Your task to perform on an android device: open app "Messenger Lite" (install if not already installed) and enter user name: "cataclysmic@outlook.com" and password: "victoriously" Image 0: 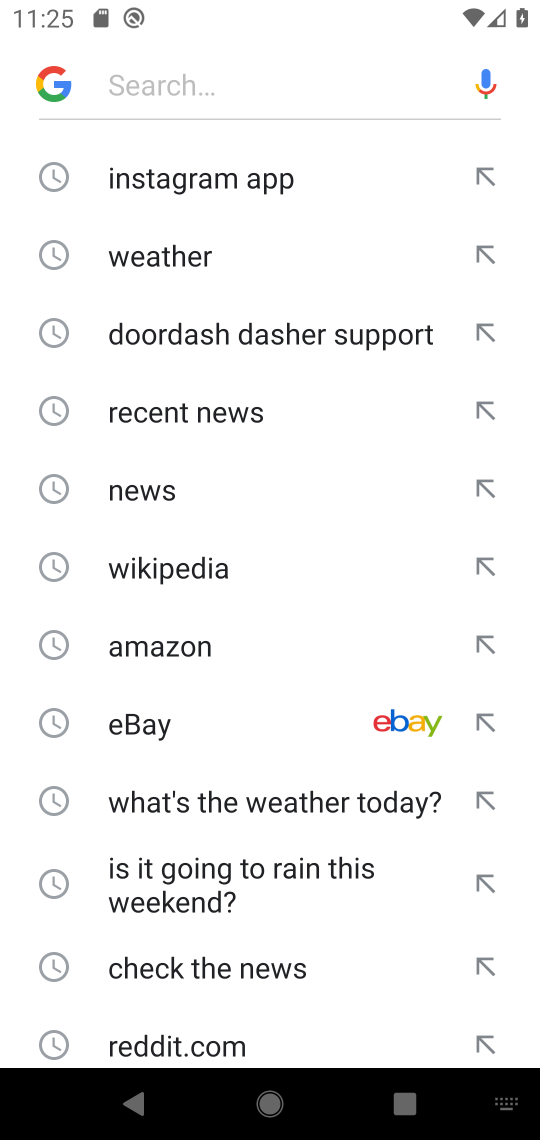
Step 0: press home button
Your task to perform on an android device: open app "Messenger Lite" (install if not already installed) and enter user name: "cataclysmic@outlook.com" and password: "victoriously" Image 1: 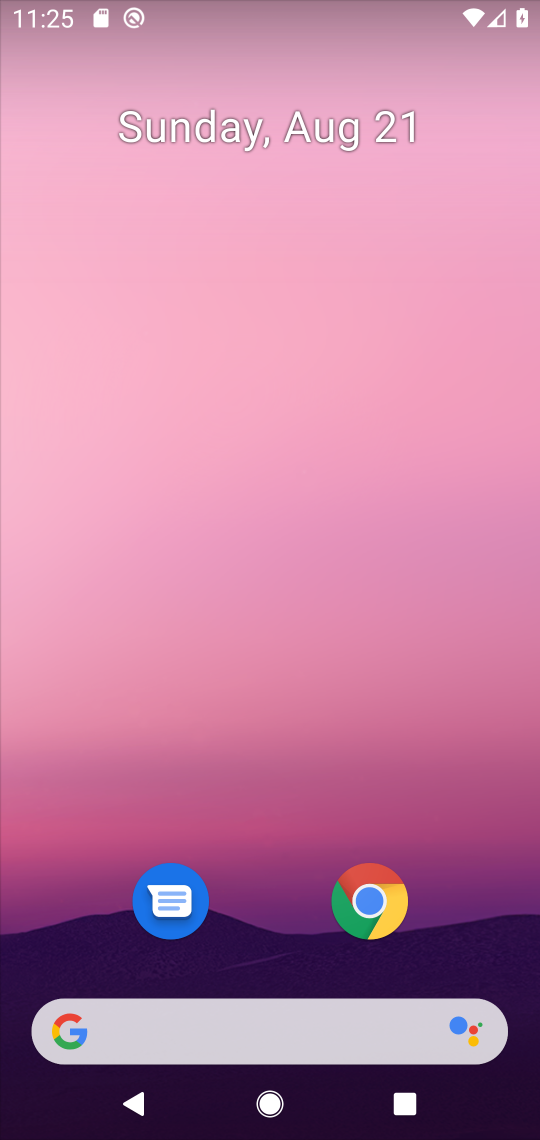
Step 1: drag from (244, 964) to (350, 47)
Your task to perform on an android device: open app "Messenger Lite" (install if not already installed) and enter user name: "cataclysmic@outlook.com" and password: "victoriously" Image 2: 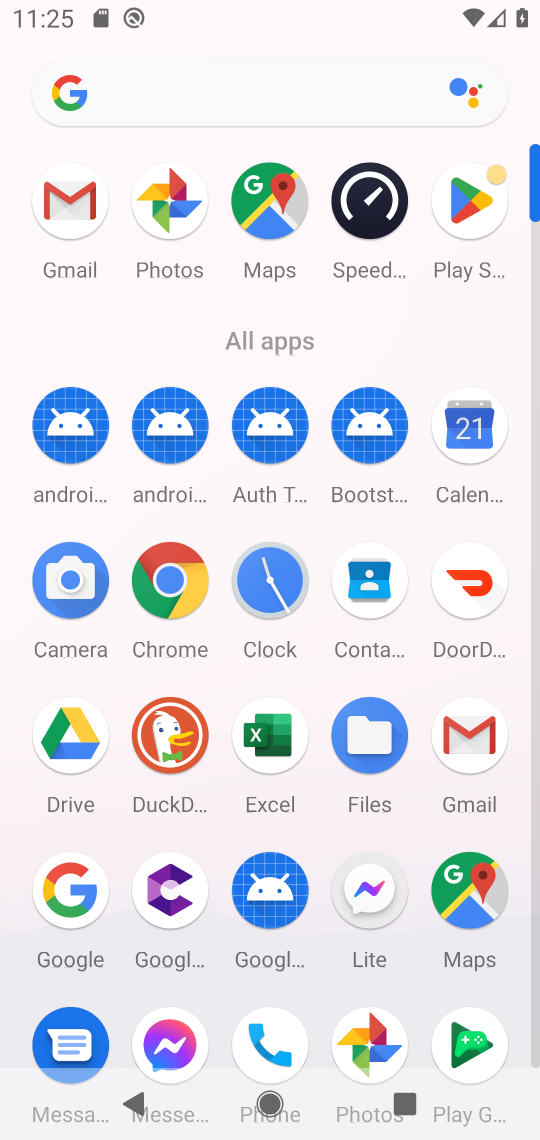
Step 2: click (453, 244)
Your task to perform on an android device: open app "Messenger Lite" (install if not already installed) and enter user name: "cataclysmic@outlook.com" and password: "victoriously" Image 3: 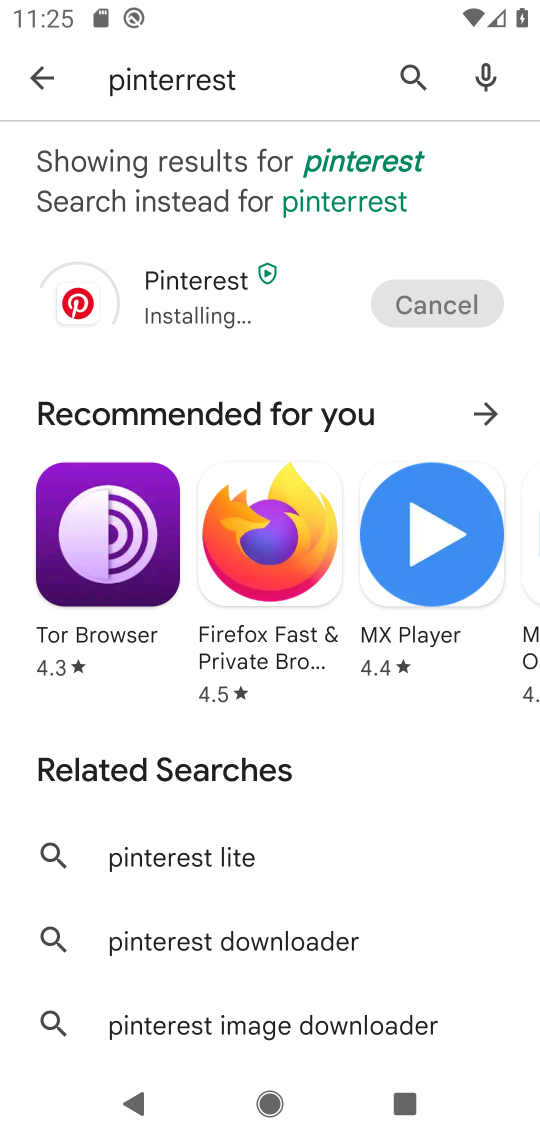
Step 3: click (404, 90)
Your task to perform on an android device: open app "Messenger Lite" (install if not already installed) and enter user name: "cataclysmic@outlook.com" and password: "victoriously" Image 4: 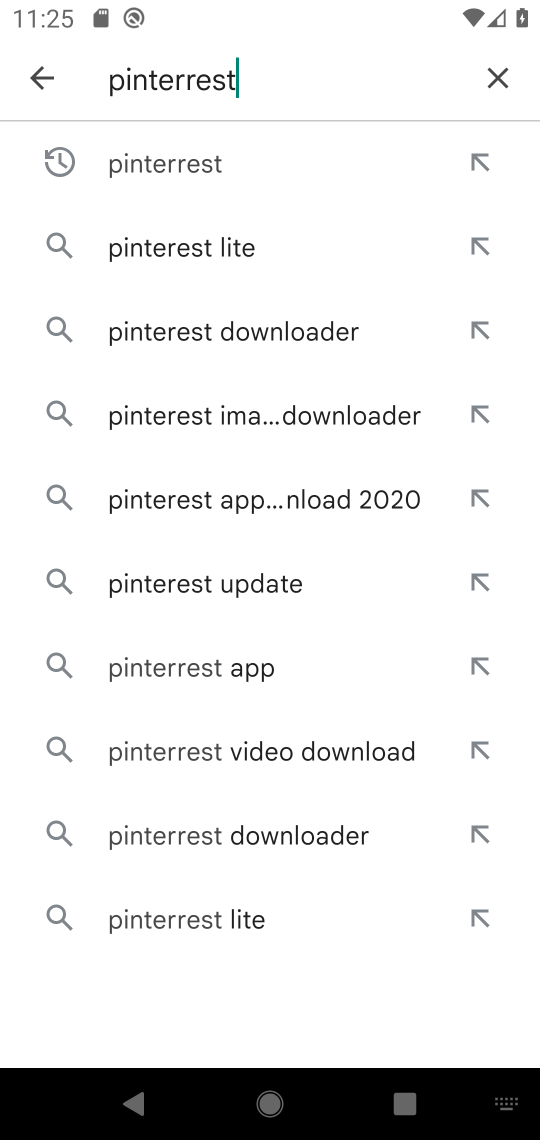
Step 4: click (473, 87)
Your task to perform on an android device: open app "Messenger Lite" (install if not already installed) and enter user name: "cataclysmic@outlook.com" and password: "victoriously" Image 5: 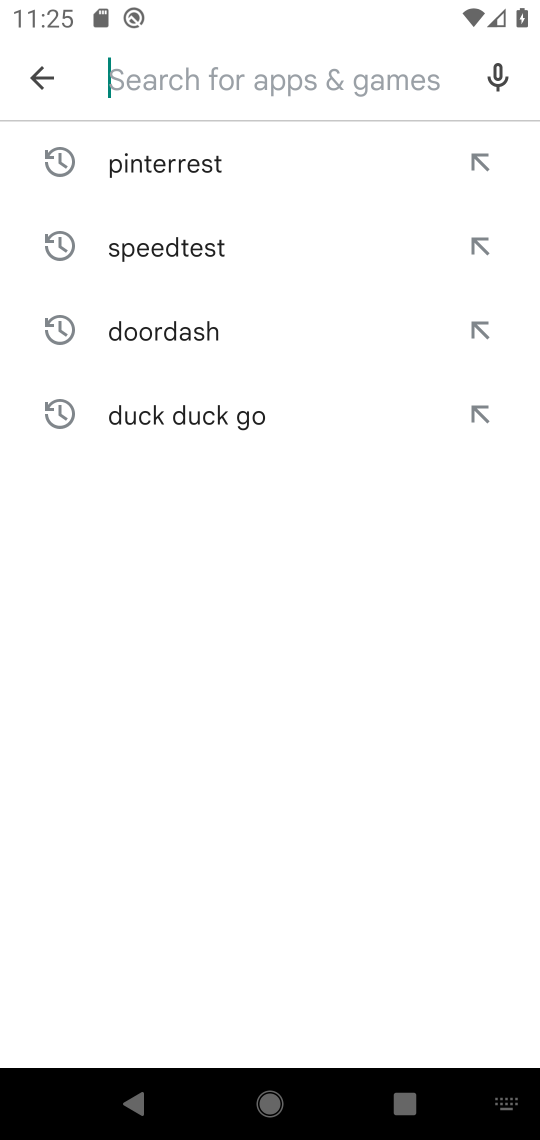
Step 5: type "messsanger"
Your task to perform on an android device: open app "Messenger Lite" (install if not already installed) and enter user name: "cataclysmic@outlook.com" and password: "victoriously" Image 6: 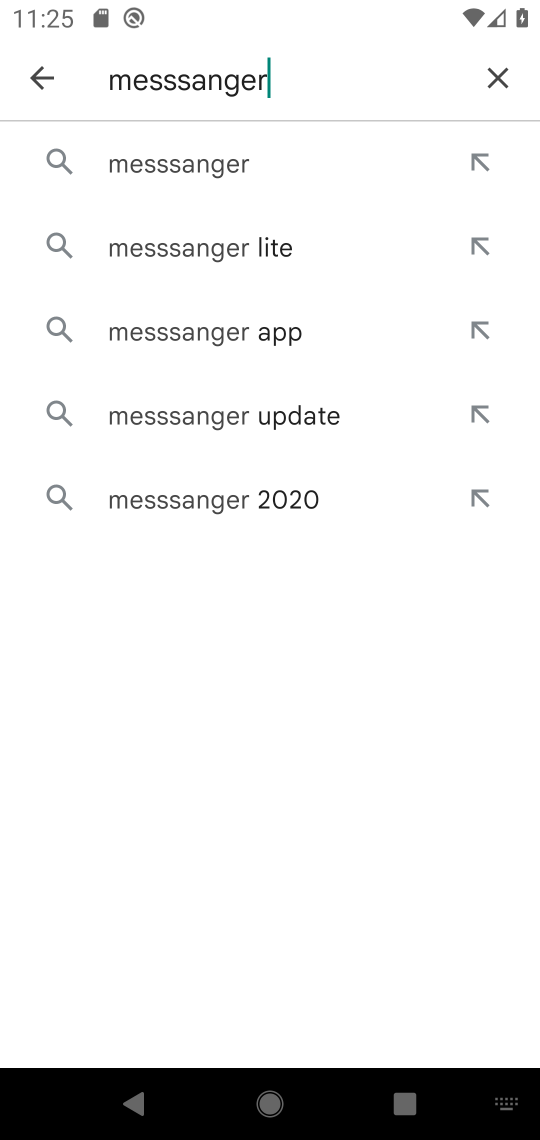
Step 6: click (270, 236)
Your task to perform on an android device: open app "Messenger Lite" (install if not already installed) and enter user name: "cataclysmic@outlook.com" and password: "victoriously" Image 7: 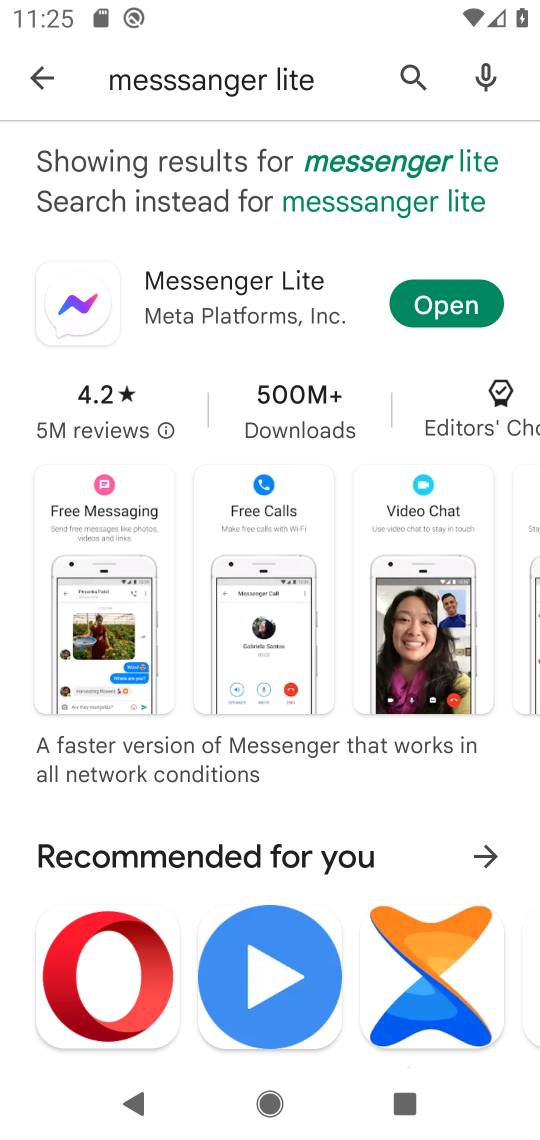
Step 7: click (442, 289)
Your task to perform on an android device: open app "Messenger Lite" (install if not already installed) and enter user name: "cataclysmic@outlook.com" and password: "victoriously" Image 8: 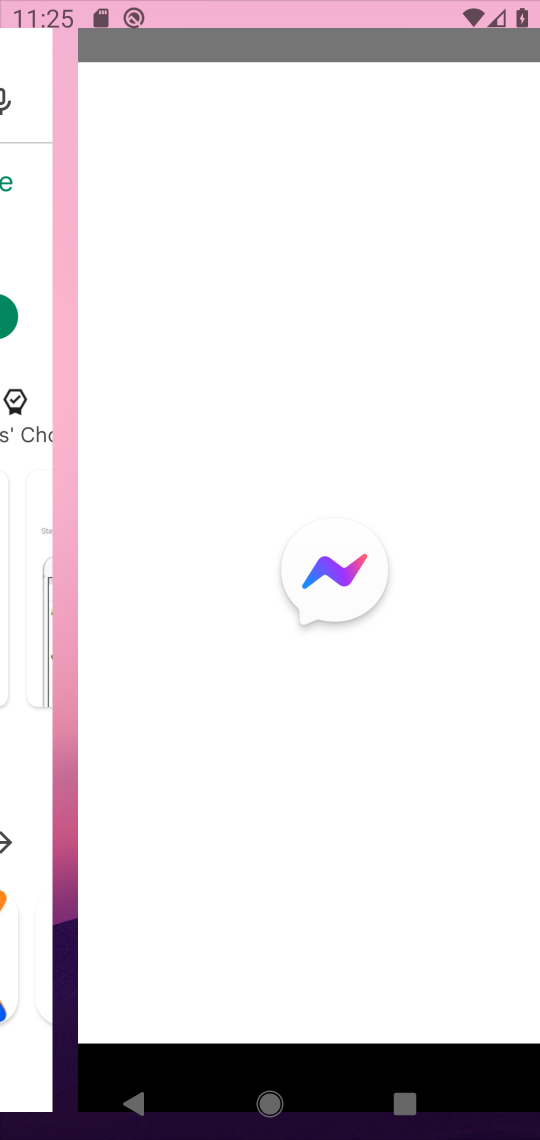
Step 8: task complete